Your task to perform on an android device: turn on bluetooth scan Image 0: 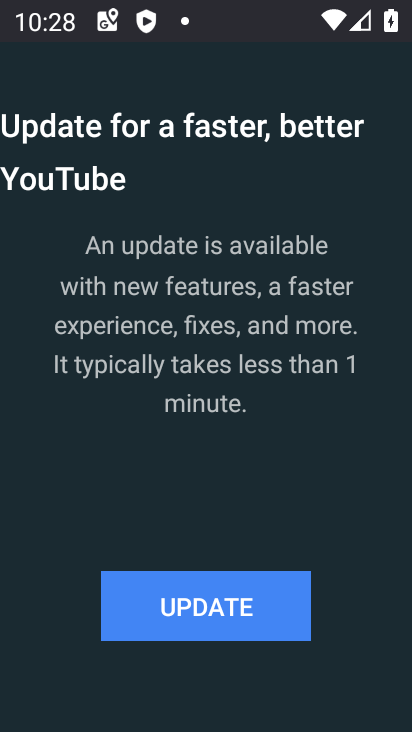
Step 0: click (194, 77)
Your task to perform on an android device: turn on bluetooth scan Image 1: 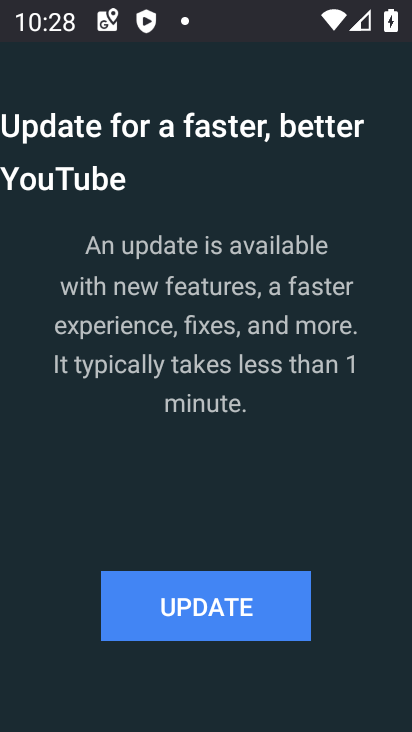
Step 1: press home button
Your task to perform on an android device: turn on bluetooth scan Image 2: 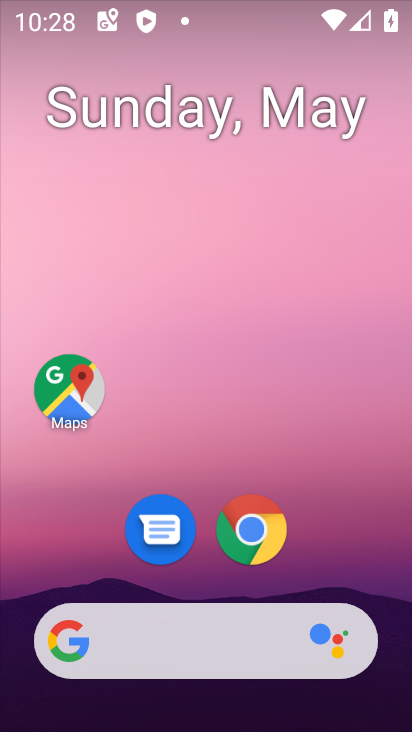
Step 2: drag from (136, 632) to (130, 0)
Your task to perform on an android device: turn on bluetooth scan Image 3: 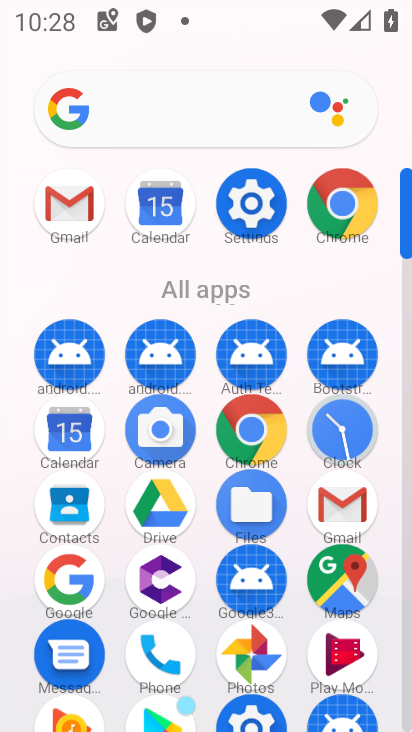
Step 3: click (256, 231)
Your task to perform on an android device: turn on bluetooth scan Image 4: 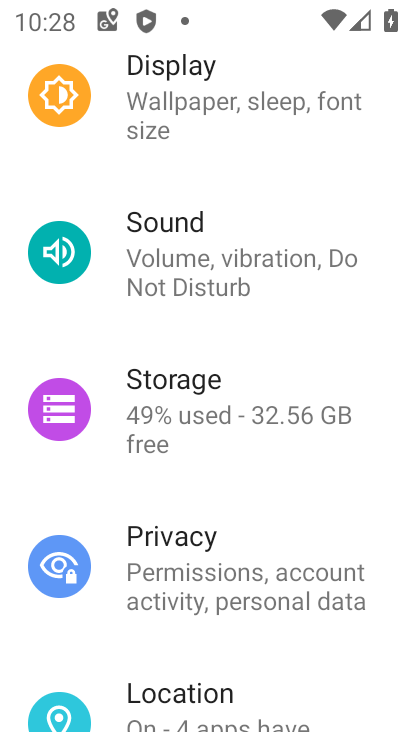
Step 4: click (144, 688)
Your task to perform on an android device: turn on bluetooth scan Image 5: 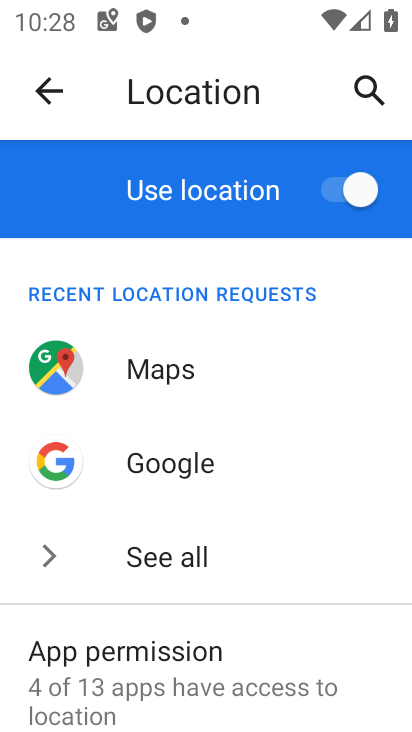
Step 5: drag from (108, 631) to (93, 208)
Your task to perform on an android device: turn on bluetooth scan Image 6: 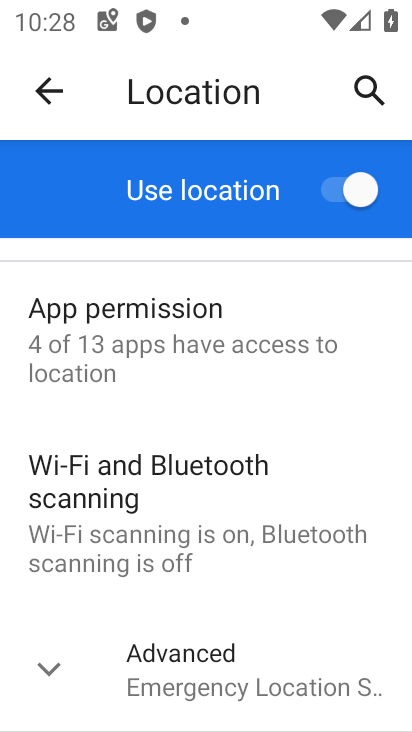
Step 6: click (147, 511)
Your task to perform on an android device: turn on bluetooth scan Image 7: 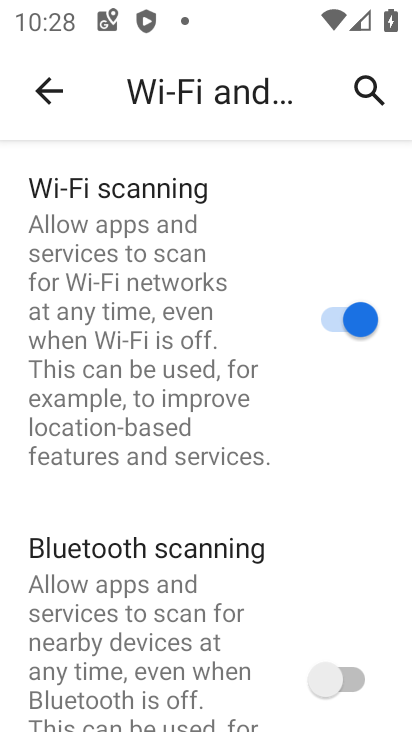
Step 7: click (329, 681)
Your task to perform on an android device: turn on bluetooth scan Image 8: 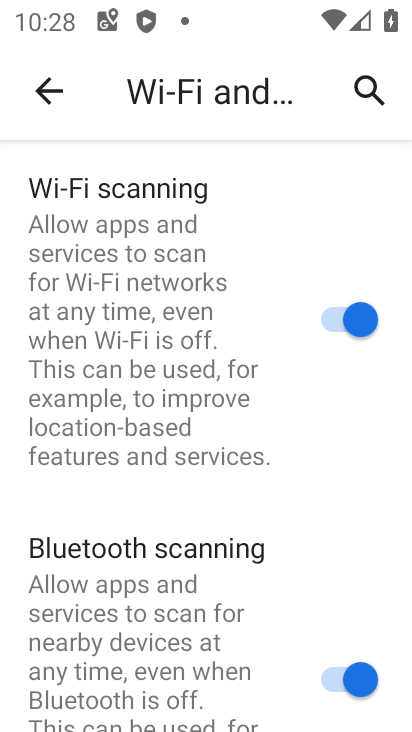
Step 8: task complete